Your task to perform on an android device: Go to Google Image 0: 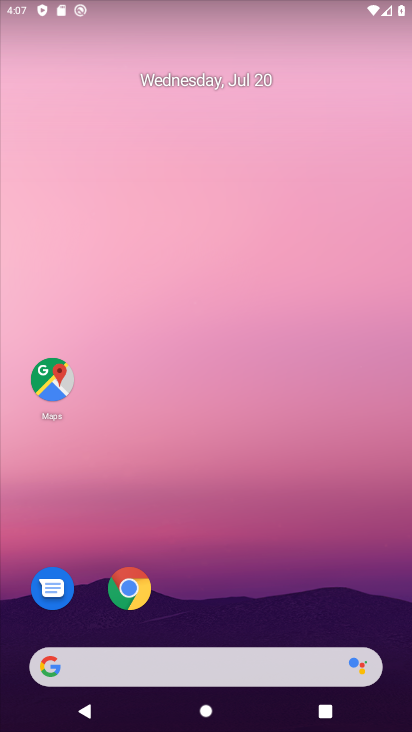
Step 0: drag from (236, 602) to (237, 24)
Your task to perform on an android device: Go to Google Image 1: 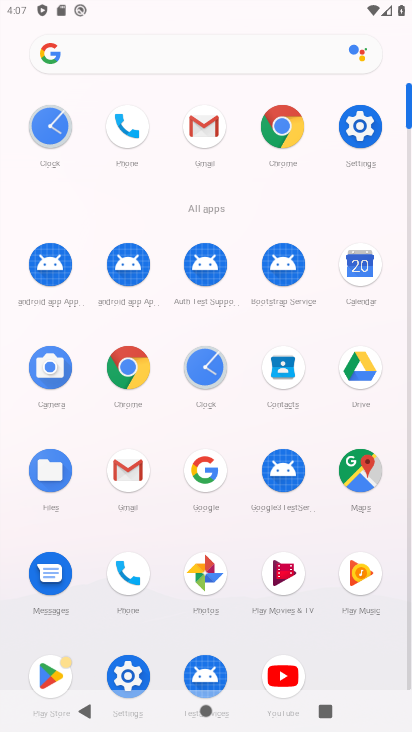
Step 1: click (203, 464)
Your task to perform on an android device: Go to Google Image 2: 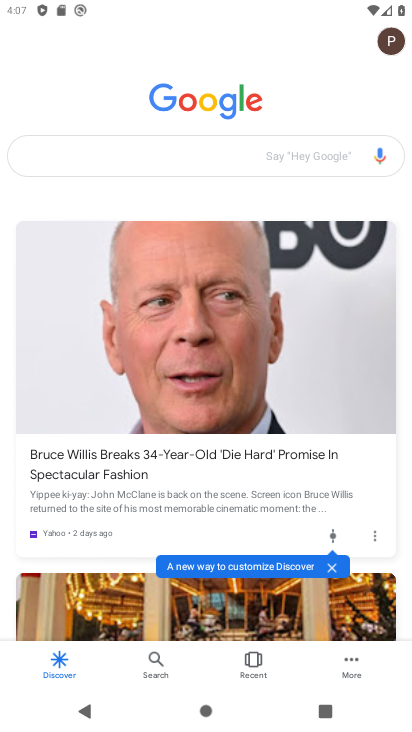
Step 2: click (255, 658)
Your task to perform on an android device: Go to Google Image 3: 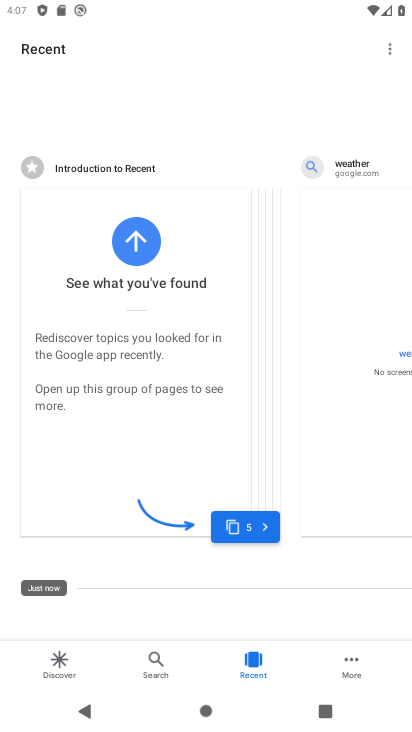
Step 3: click (352, 665)
Your task to perform on an android device: Go to Google Image 4: 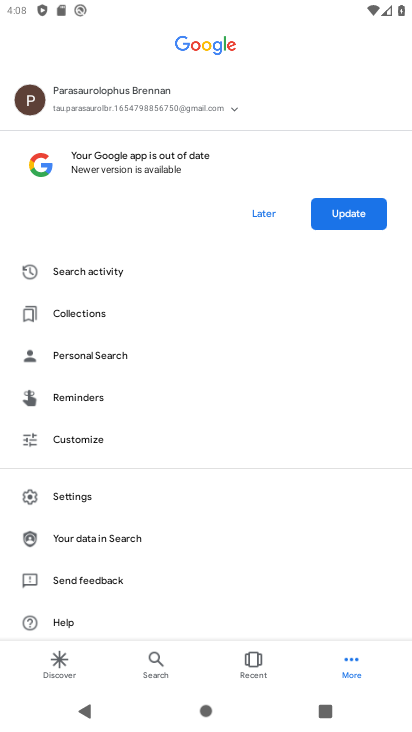
Step 4: task complete